Your task to perform on an android device: What's the weather going to be tomorrow? Image 0: 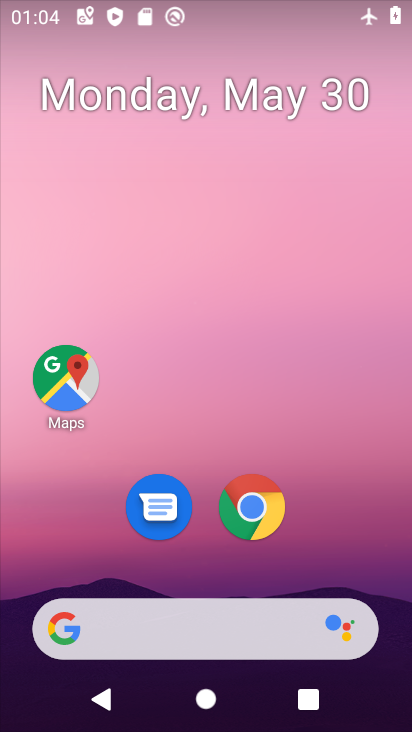
Step 0: click (238, 480)
Your task to perform on an android device: What's the weather going to be tomorrow? Image 1: 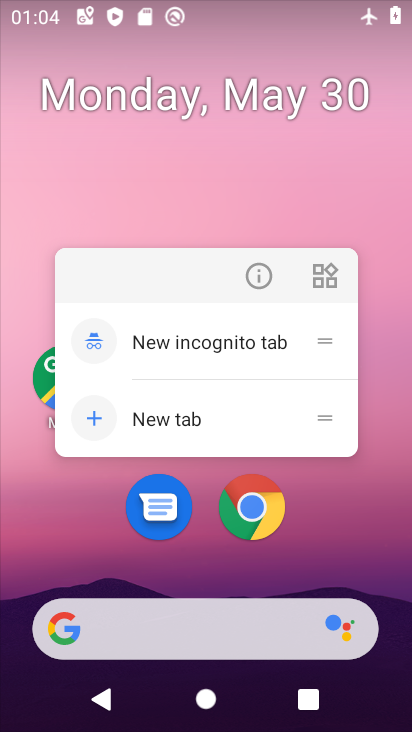
Step 1: click (261, 504)
Your task to perform on an android device: What's the weather going to be tomorrow? Image 2: 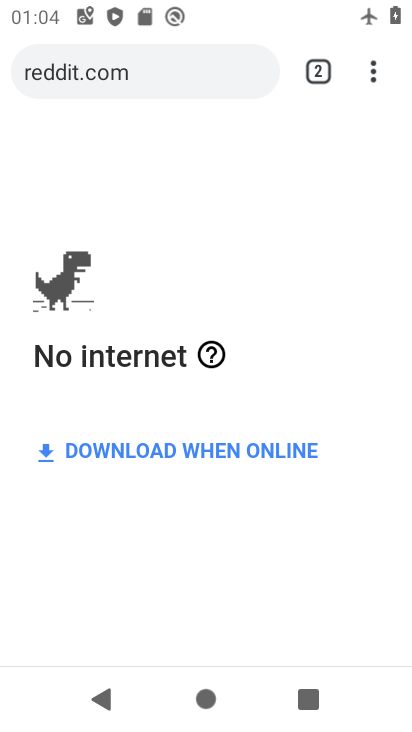
Step 2: click (378, 71)
Your task to perform on an android device: What's the weather going to be tomorrow? Image 3: 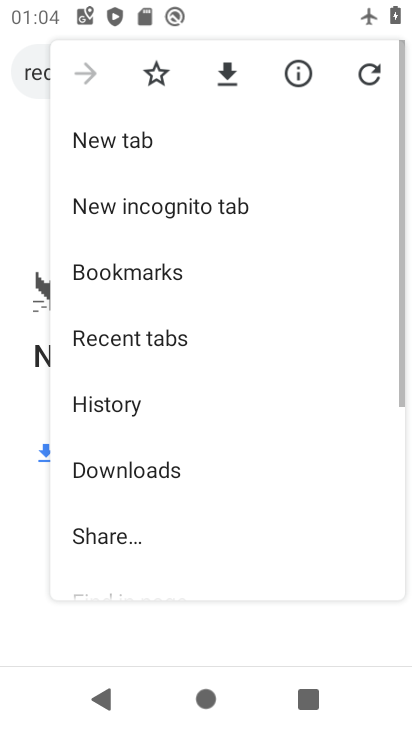
Step 3: click (144, 145)
Your task to perform on an android device: What's the weather going to be tomorrow? Image 4: 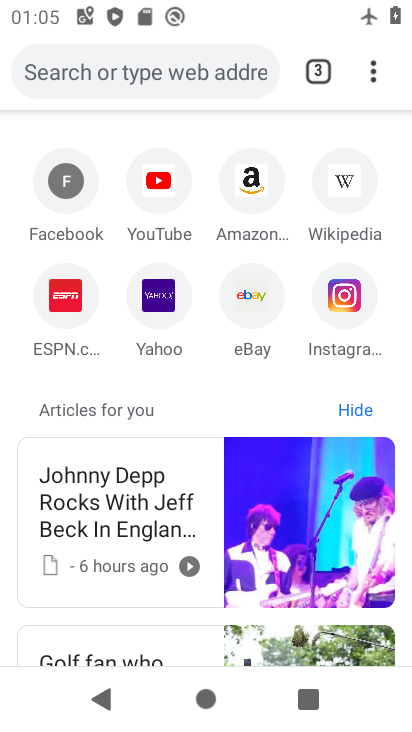
Step 4: click (125, 76)
Your task to perform on an android device: What's the weather going to be tomorrow? Image 5: 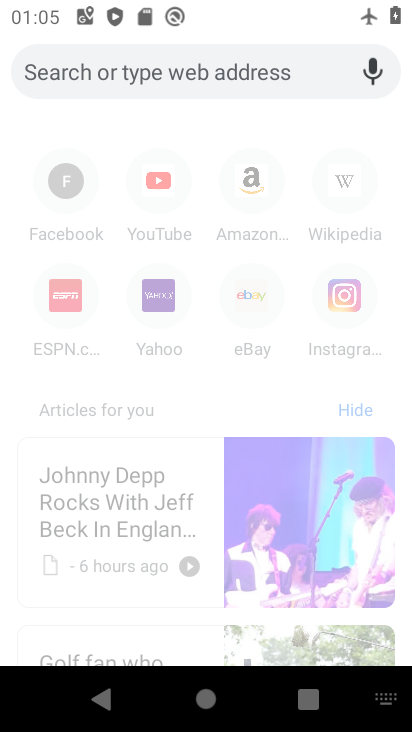
Step 5: type "What's the weather going to be tomorrow?"
Your task to perform on an android device: What's the weather going to be tomorrow? Image 6: 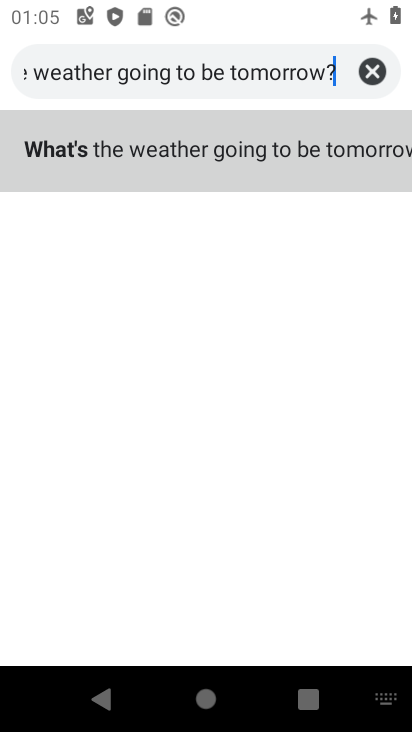
Step 6: click (206, 137)
Your task to perform on an android device: What's the weather going to be tomorrow? Image 7: 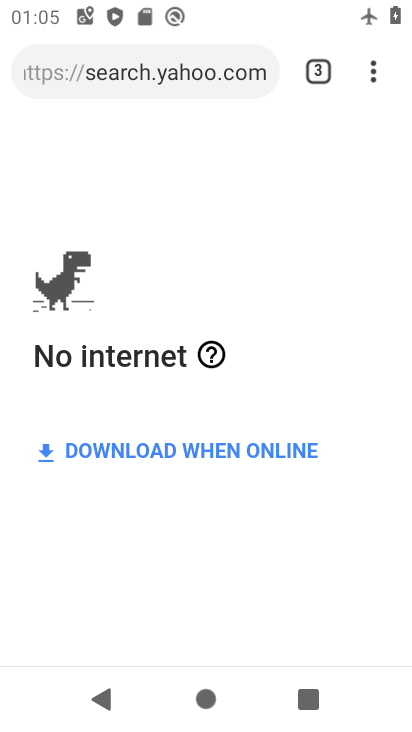
Step 7: task complete